Your task to perform on an android device: turn on data saver in the chrome app Image 0: 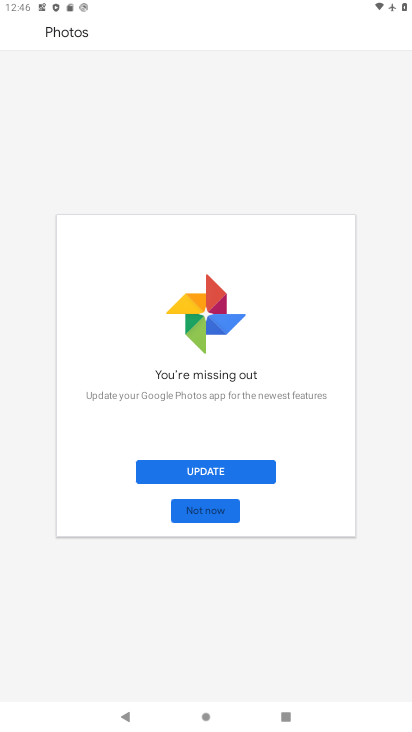
Step 0: press home button
Your task to perform on an android device: turn on data saver in the chrome app Image 1: 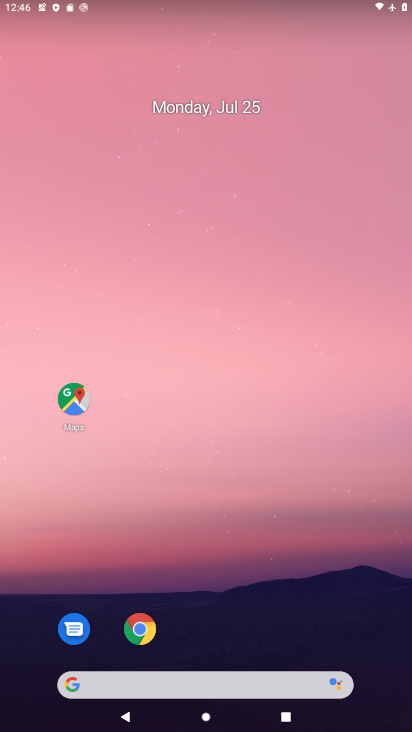
Step 1: click (144, 639)
Your task to perform on an android device: turn on data saver in the chrome app Image 2: 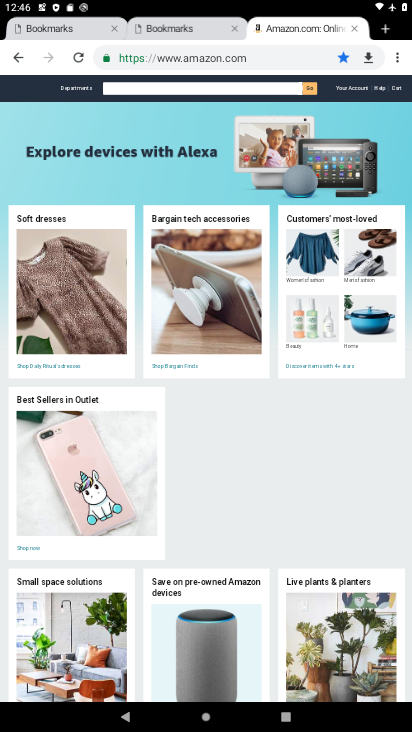
Step 2: click (385, 56)
Your task to perform on an android device: turn on data saver in the chrome app Image 3: 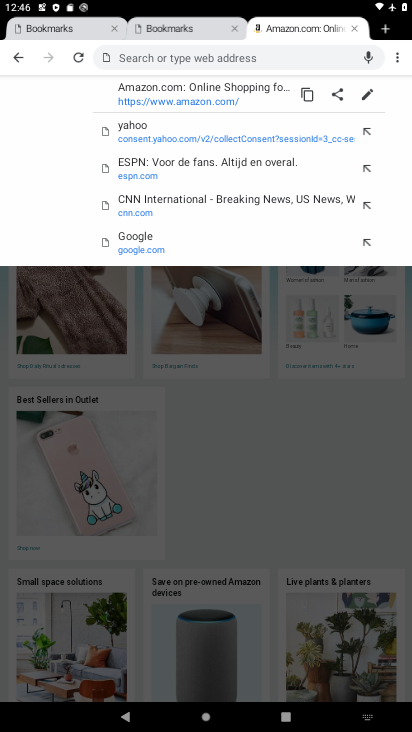
Step 3: click (393, 56)
Your task to perform on an android device: turn on data saver in the chrome app Image 4: 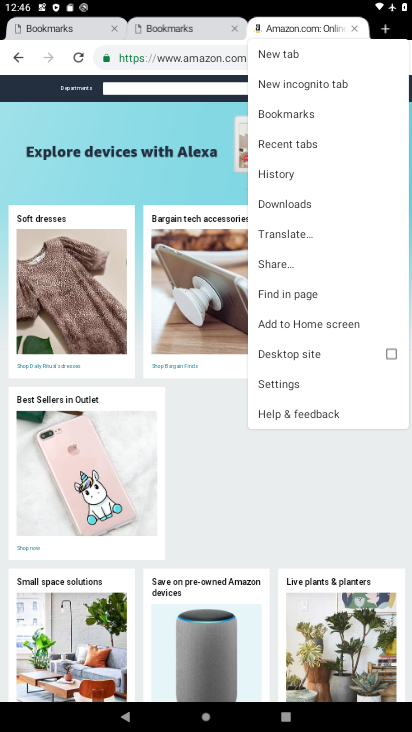
Step 4: click (284, 385)
Your task to perform on an android device: turn on data saver in the chrome app Image 5: 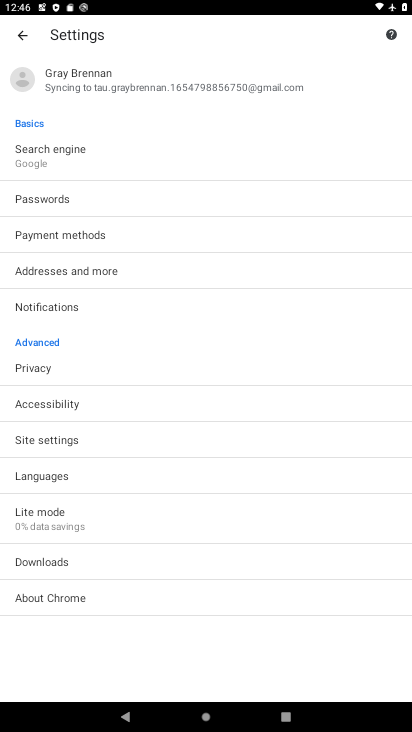
Step 5: click (104, 527)
Your task to perform on an android device: turn on data saver in the chrome app Image 6: 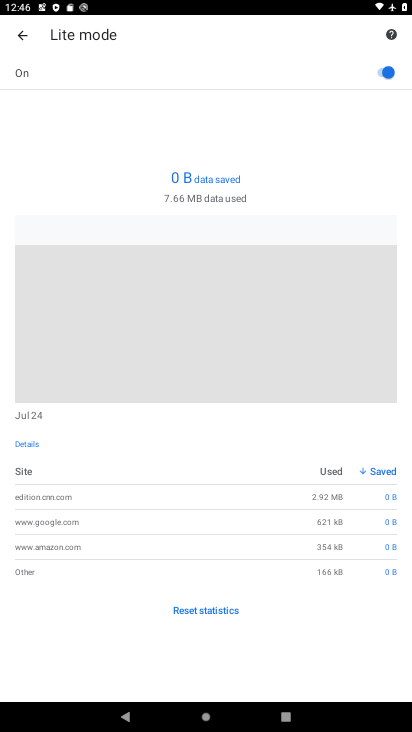
Step 6: click (372, 67)
Your task to perform on an android device: turn on data saver in the chrome app Image 7: 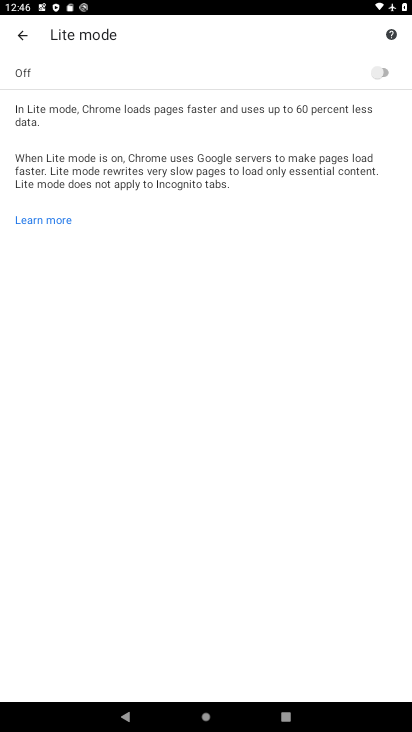
Step 7: task complete